Your task to perform on an android device: Go to notification settings Image 0: 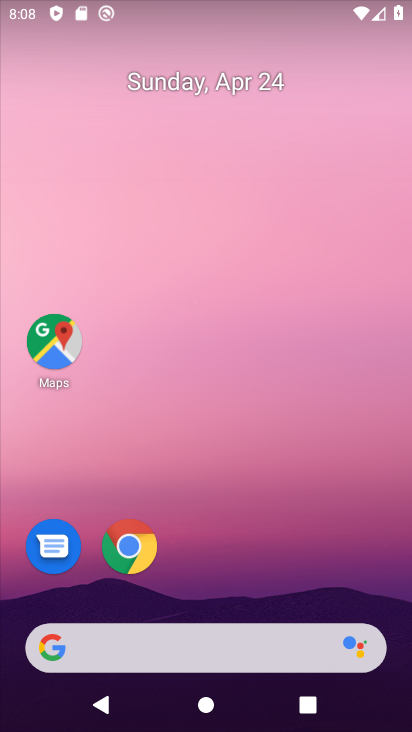
Step 0: drag from (235, 579) to (310, 82)
Your task to perform on an android device: Go to notification settings Image 1: 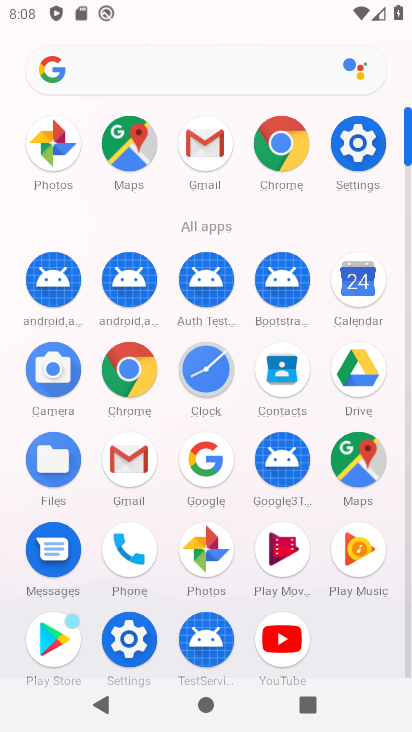
Step 1: click (358, 145)
Your task to perform on an android device: Go to notification settings Image 2: 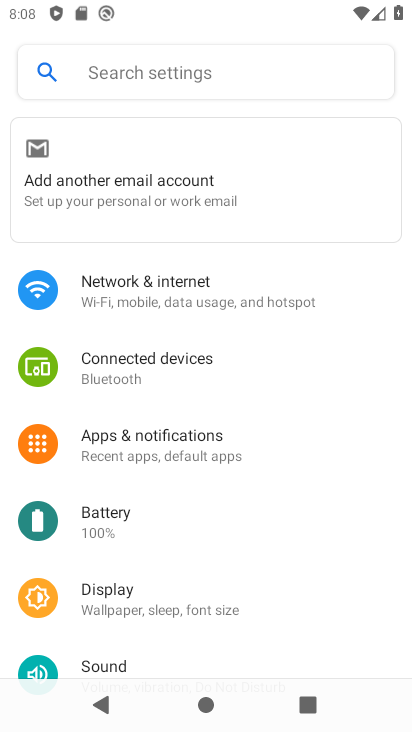
Step 2: click (214, 426)
Your task to perform on an android device: Go to notification settings Image 3: 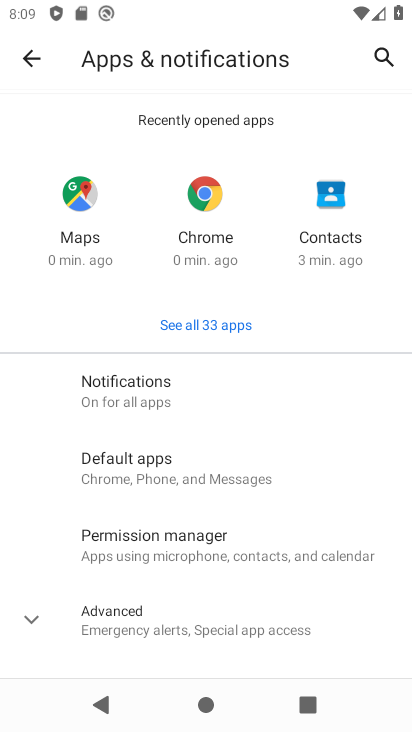
Step 3: task complete